Your task to perform on an android device: What's on my calendar today? Image 0: 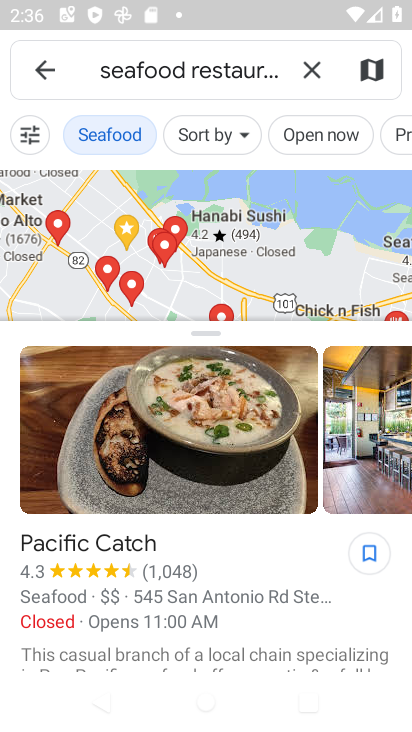
Step 0: press home button
Your task to perform on an android device: What's on my calendar today? Image 1: 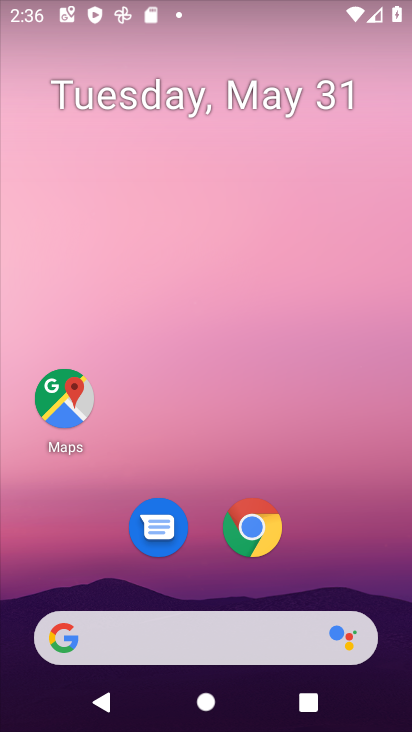
Step 1: drag from (374, 396) to (29, 276)
Your task to perform on an android device: What's on my calendar today? Image 2: 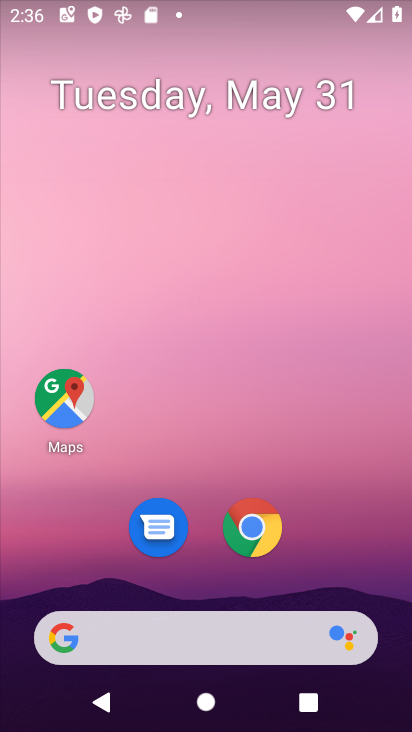
Step 2: drag from (331, 562) to (288, 104)
Your task to perform on an android device: What's on my calendar today? Image 3: 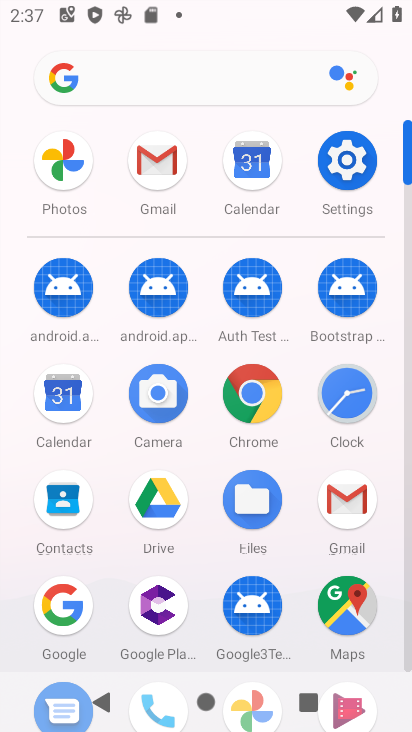
Step 3: click (68, 414)
Your task to perform on an android device: What's on my calendar today? Image 4: 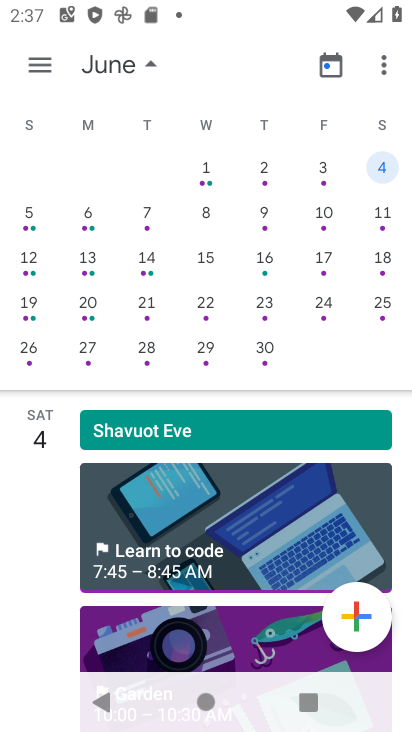
Step 4: task complete